Your task to perform on an android device: check battery use Image 0: 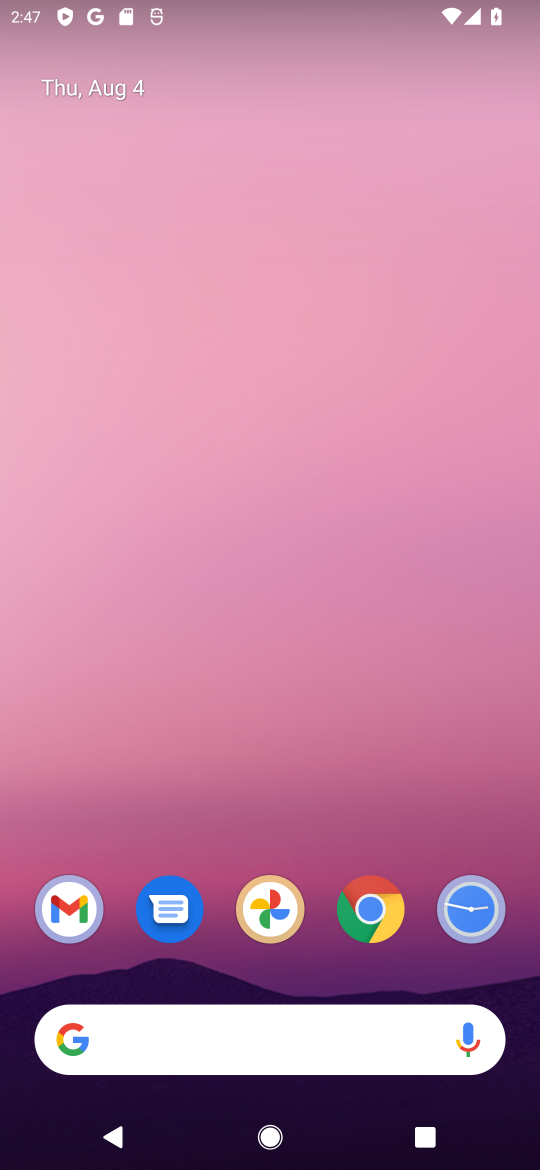
Step 0: drag from (273, 1057) to (516, 198)
Your task to perform on an android device: check battery use Image 1: 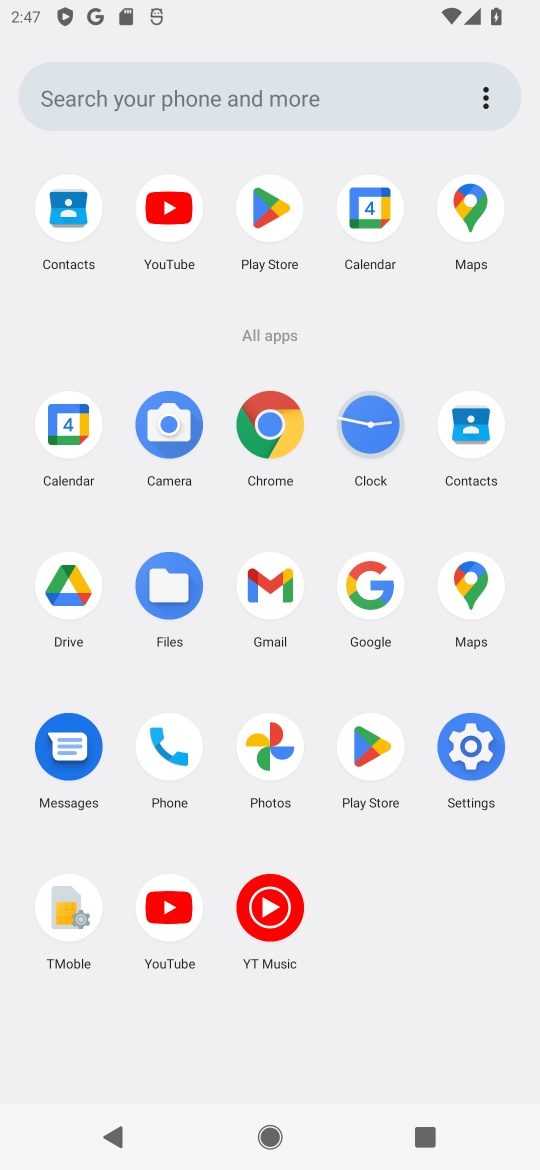
Step 1: click (469, 748)
Your task to perform on an android device: check battery use Image 2: 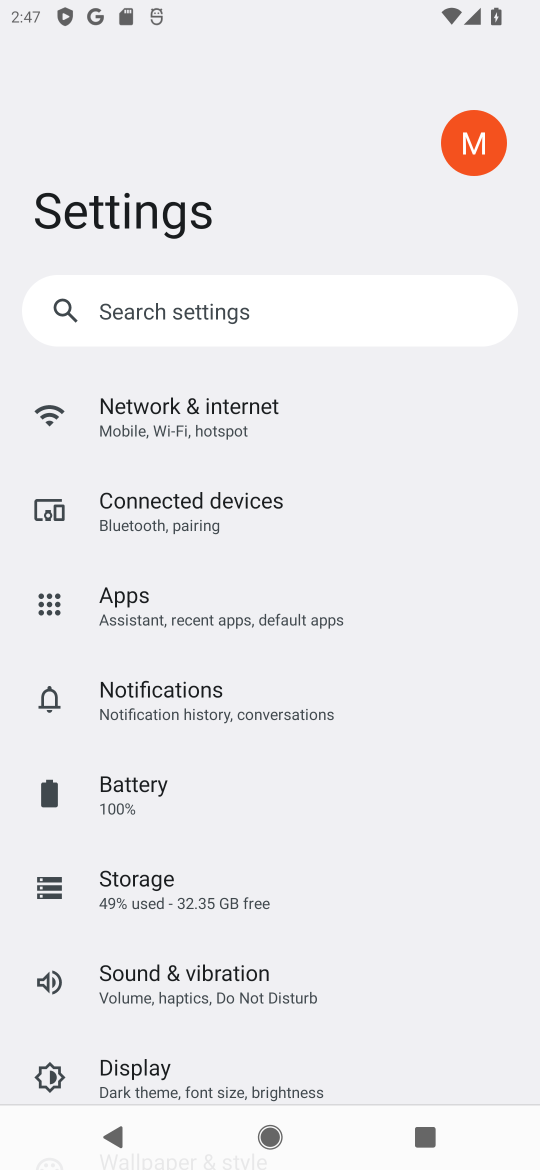
Step 2: click (108, 781)
Your task to perform on an android device: check battery use Image 3: 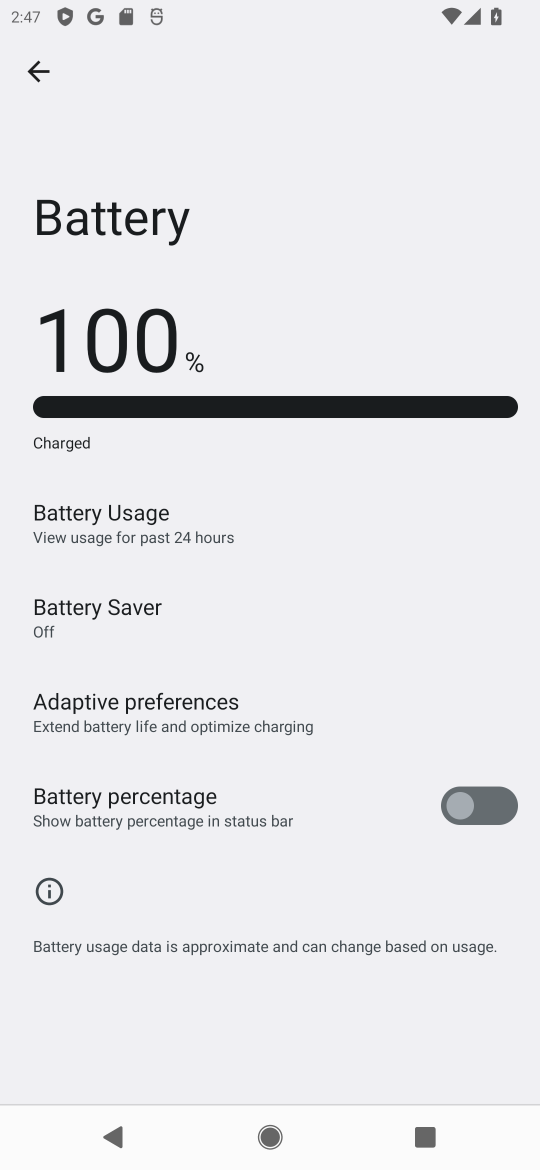
Step 3: click (192, 520)
Your task to perform on an android device: check battery use Image 4: 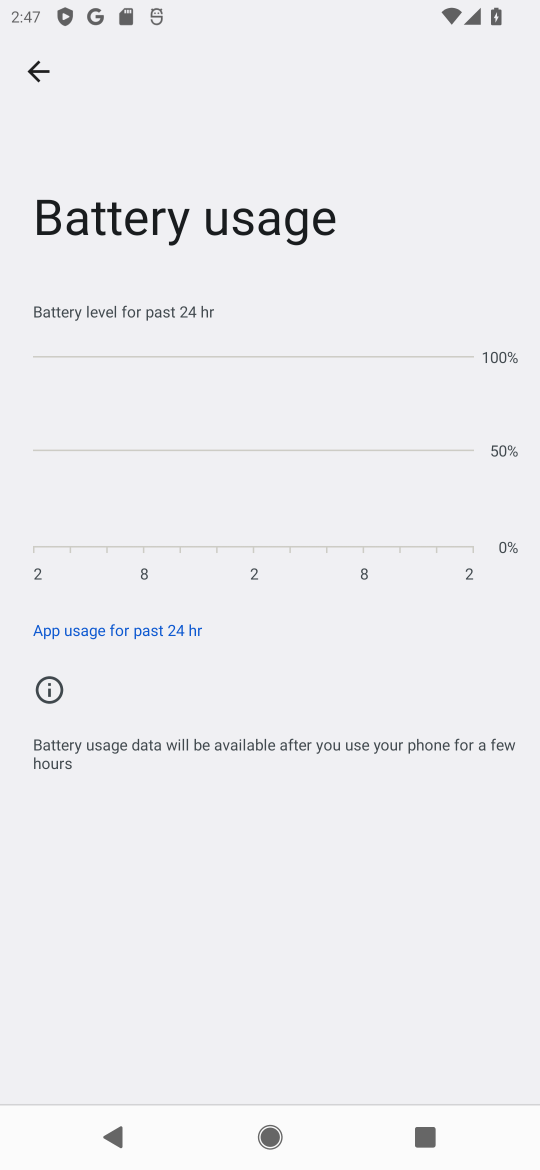
Step 4: task complete